Your task to perform on an android device: turn on the 24-hour format for clock Image 0: 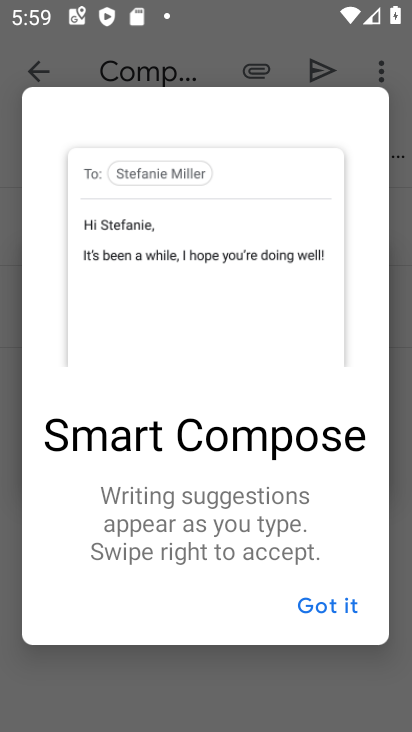
Step 0: press home button
Your task to perform on an android device: turn on the 24-hour format for clock Image 1: 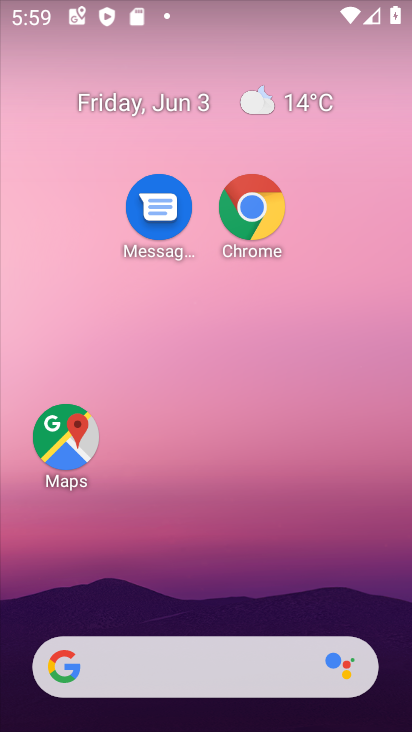
Step 1: drag from (226, 600) to (181, 58)
Your task to perform on an android device: turn on the 24-hour format for clock Image 2: 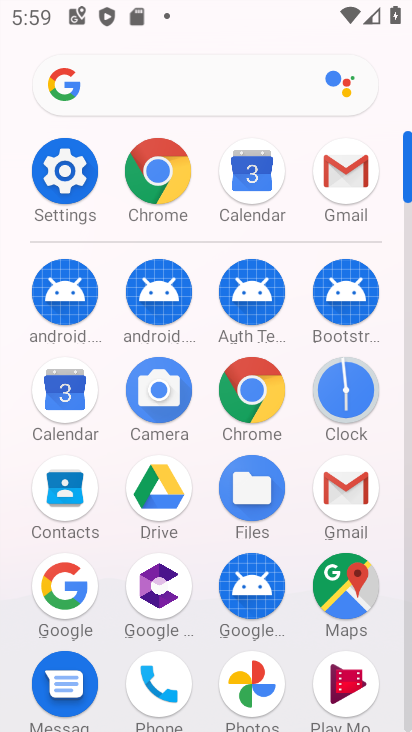
Step 2: click (328, 390)
Your task to perform on an android device: turn on the 24-hour format for clock Image 3: 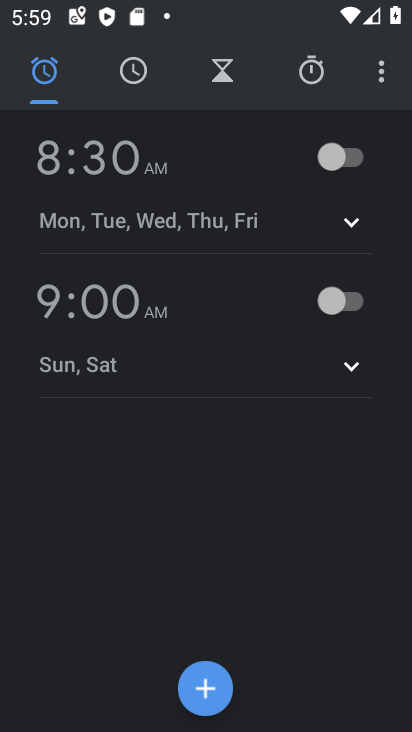
Step 3: click (382, 80)
Your task to perform on an android device: turn on the 24-hour format for clock Image 4: 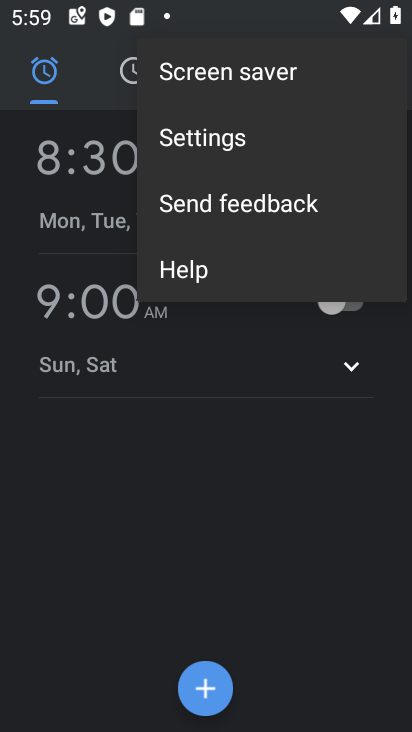
Step 4: click (236, 161)
Your task to perform on an android device: turn on the 24-hour format for clock Image 5: 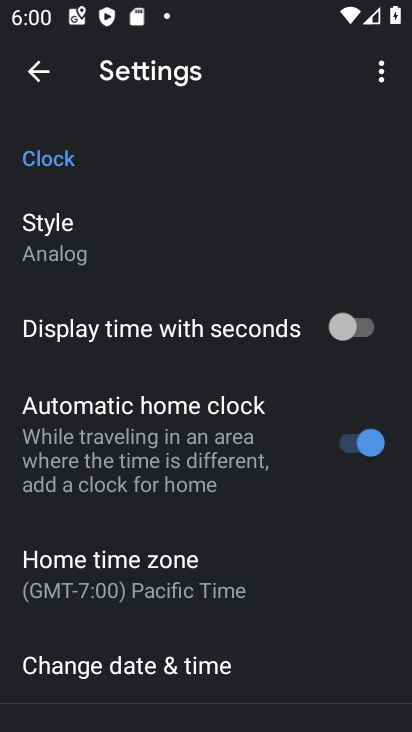
Step 5: click (157, 667)
Your task to perform on an android device: turn on the 24-hour format for clock Image 6: 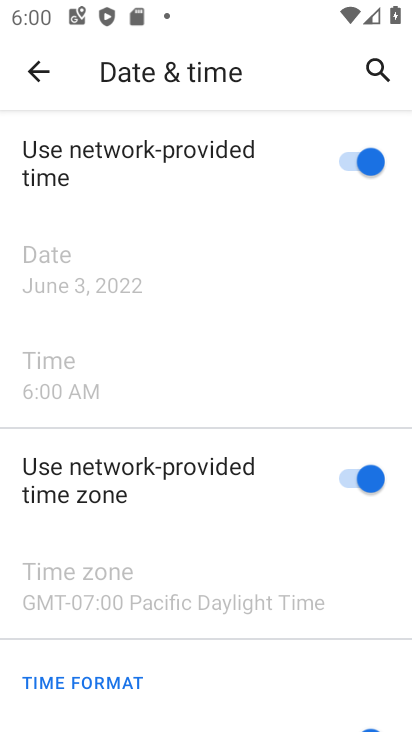
Step 6: drag from (254, 678) to (200, 283)
Your task to perform on an android device: turn on the 24-hour format for clock Image 7: 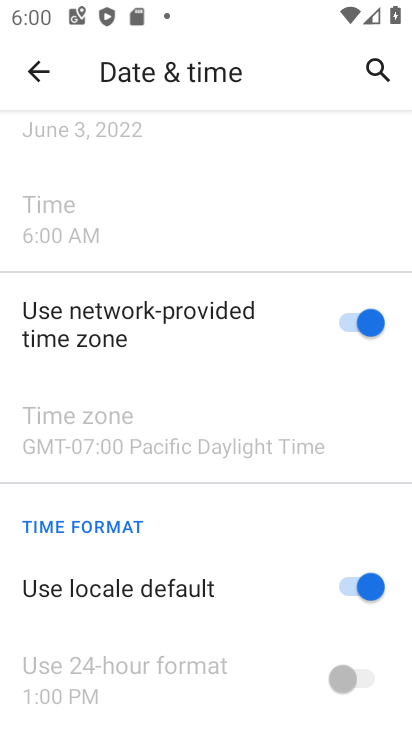
Step 7: drag from (293, 673) to (233, 239)
Your task to perform on an android device: turn on the 24-hour format for clock Image 8: 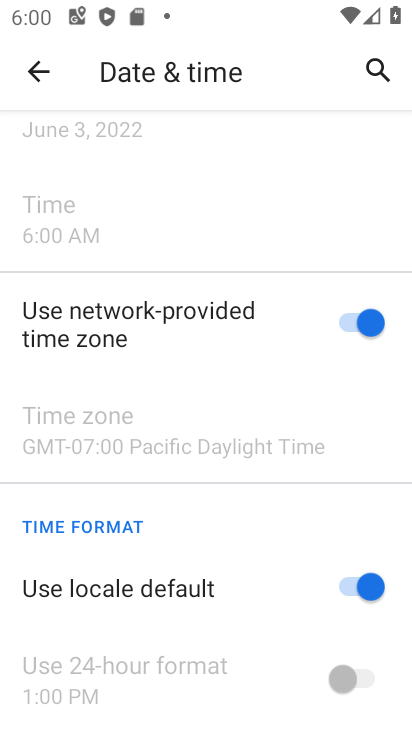
Step 8: click (372, 673)
Your task to perform on an android device: turn on the 24-hour format for clock Image 9: 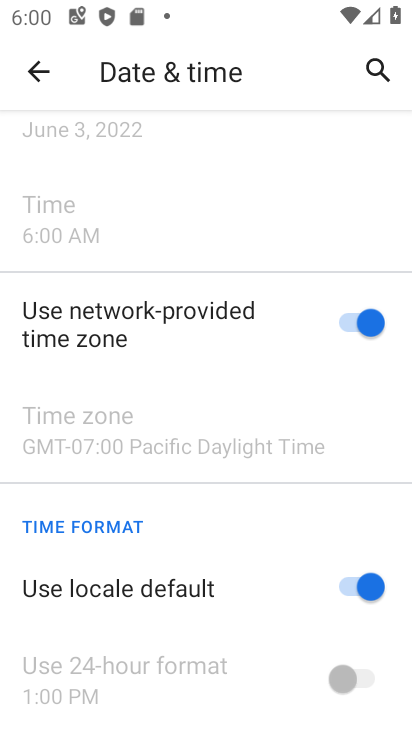
Step 9: click (344, 576)
Your task to perform on an android device: turn on the 24-hour format for clock Image 10: 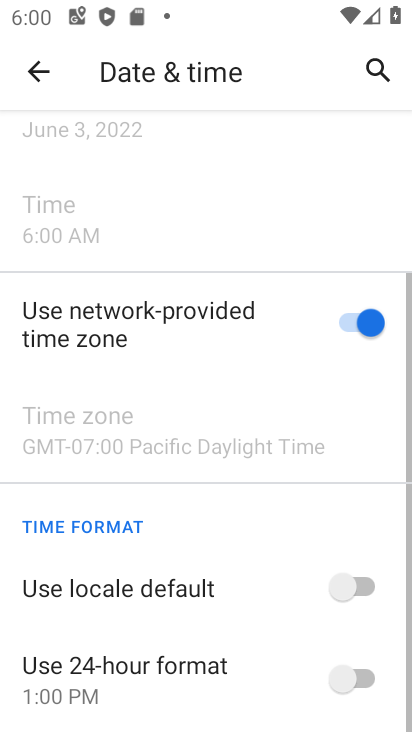
Step 10: click (379, 687)
Your task to perform on an android device: turn on the 24-hour format for clock Image 11: 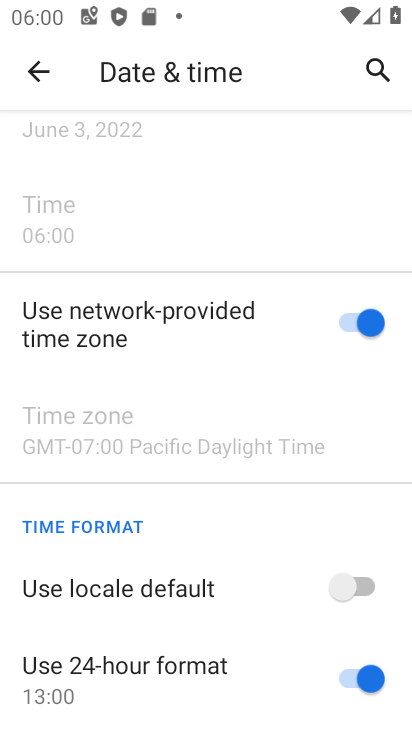
Step 11: task complete